Your task to perform on an android device: Open display settings Image 0: 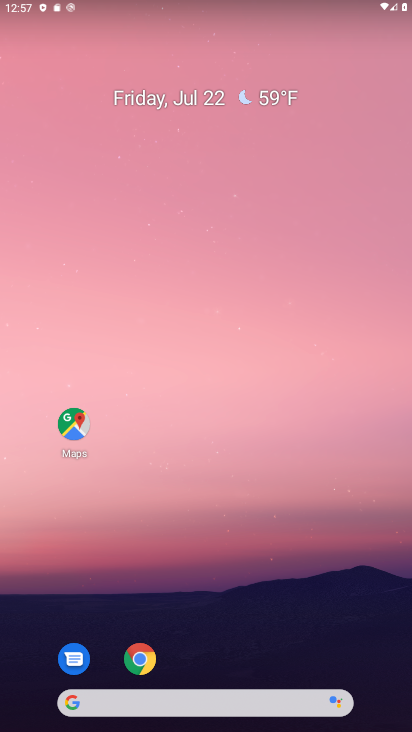
Step 0: drag from (221, 651) to (227, 225)
Your task to perform on an android device: Open display settings Image 1: 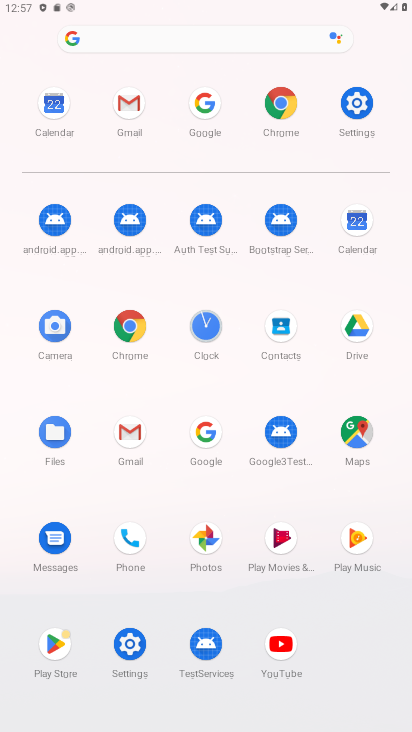
Step 1: click (357, 107)
Your task to perform on an android device: Open display settings Image 2: 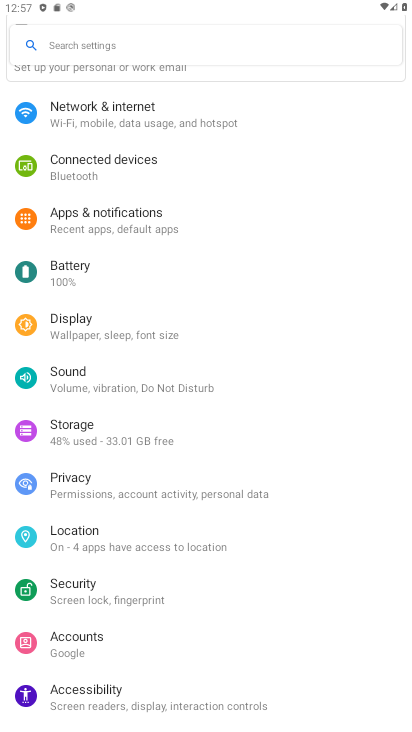
Step 2: click (110, 326)
Your task to perform on an android device: Open display settings Image 3: 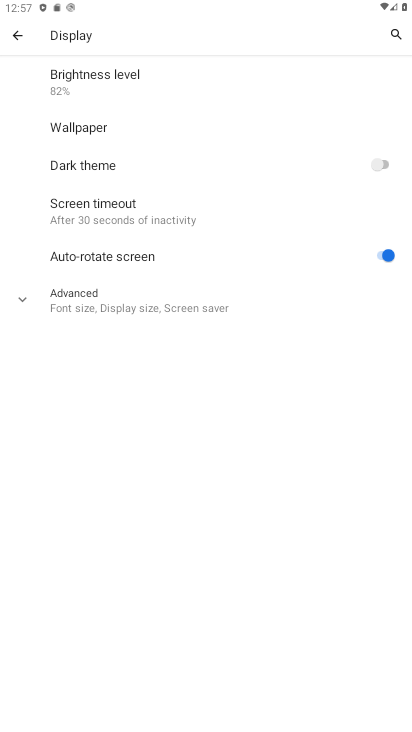
Step 3: task complete